Your task to perform on an android device: toggle priority inbox in the gmail app Image 0: 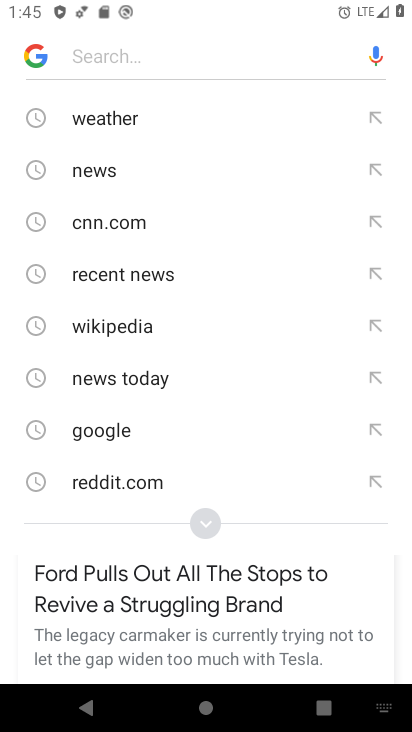
Step 0: press home button
Your task to perform on an android device: toggle priority inbox in the gmail app Image 1: 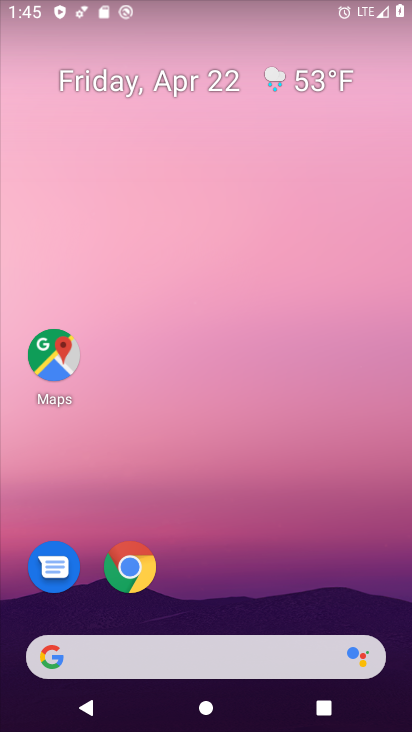
Step 1: drag from (340, 600) to (309, 186)
Your task to perform on an android device: toggle priority inbox in the gmail app Image 2: 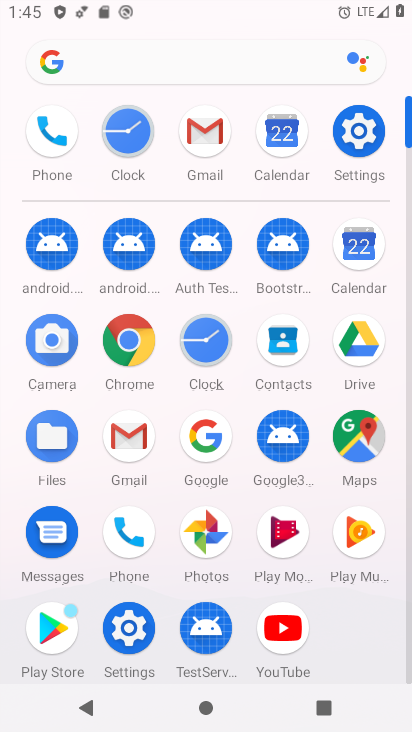
Step 2: click (124, 430)
Your task to perform on an android device: toggle priority inbox in the gmail app Image 3: 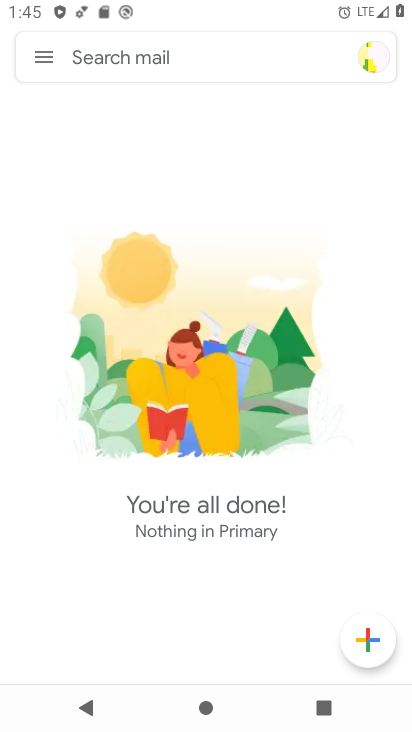
Step 3: click (37, 56)
Your task to perform on an android device: toggle priority inbox in the gmail app Image 4: 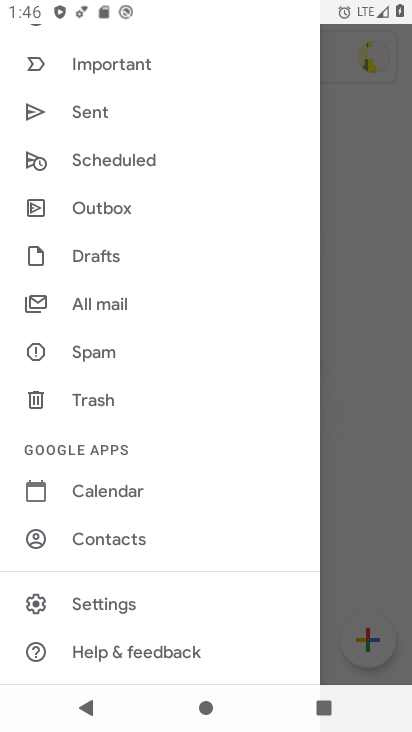
Step 4: click (119, 596)
Your task to perform on an android device: toggle priority inbox in the gmail app Image 5: 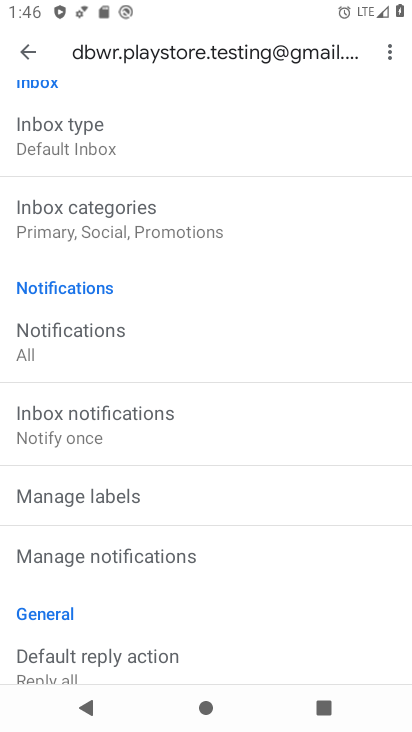
Step 5: click (75, 136)
Your task to perform on an android device: toggle priority inbox in the gmail app Image 6: 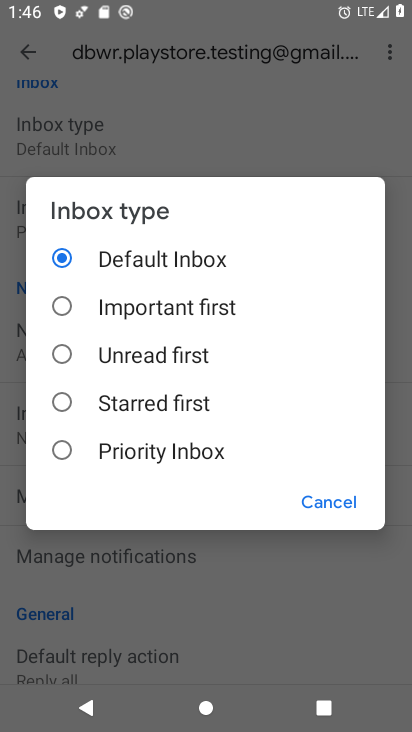
Step 6: click (69, 455)
Your task to perform on an android device: toggle priority inbox in the gmail app Image 7: 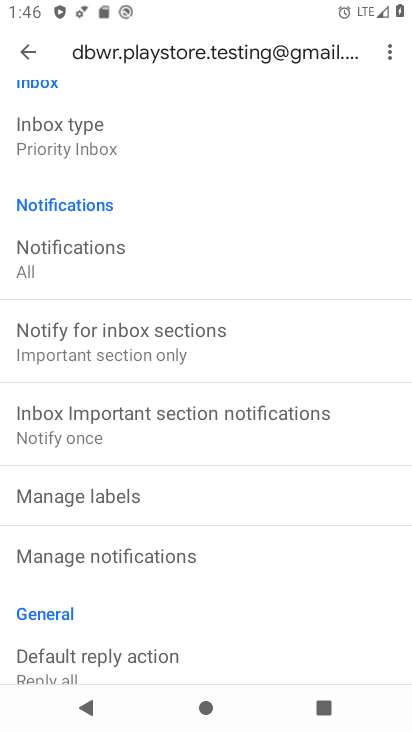
Step 7: task complete